Your task to perform on an android device: turn off picture-in-picture Image 0: 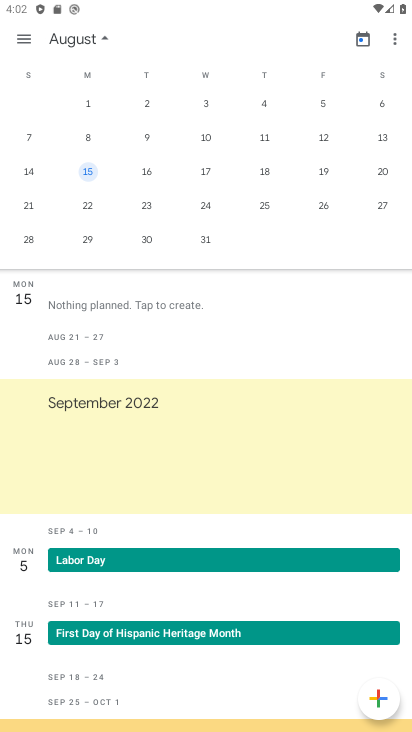
Step 0: press home button
Your task to perform on an android device: turn off picture-in-picture Image 1: 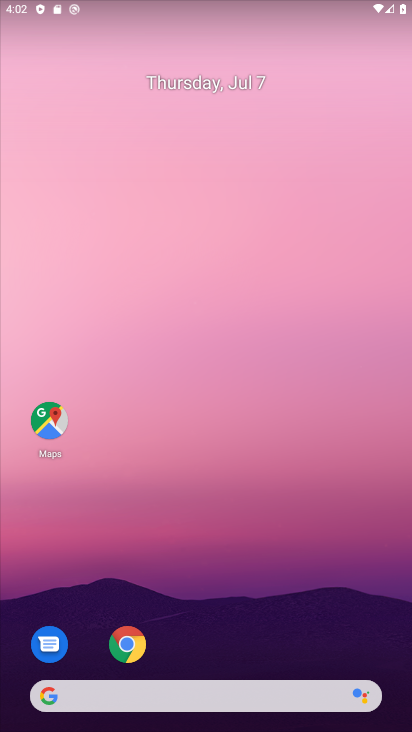
Step 1: click (133, 654)
Your task to perform on an android device: turn off picture-in-picture Image 2: 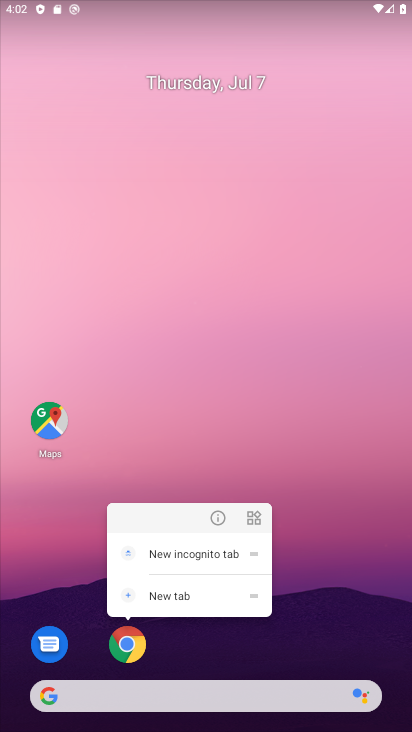
Step 2: click (222, 522)
Your task to perform on an android device: turn off picture-in-picture Image 3: 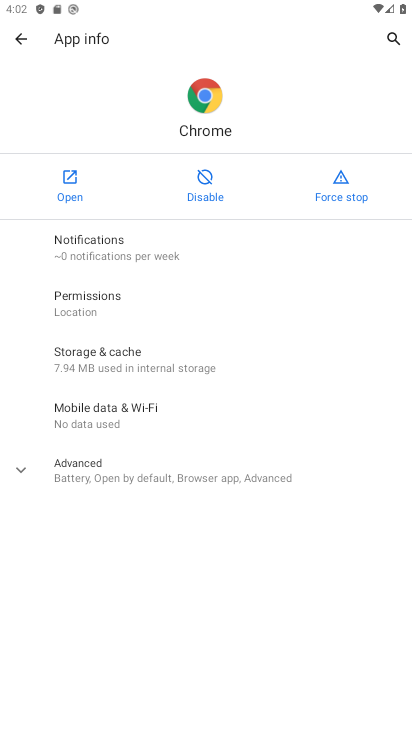
Step 3: click (197, 467)
Your task to perform on an android device: turn off picture-in-picture Image 4: 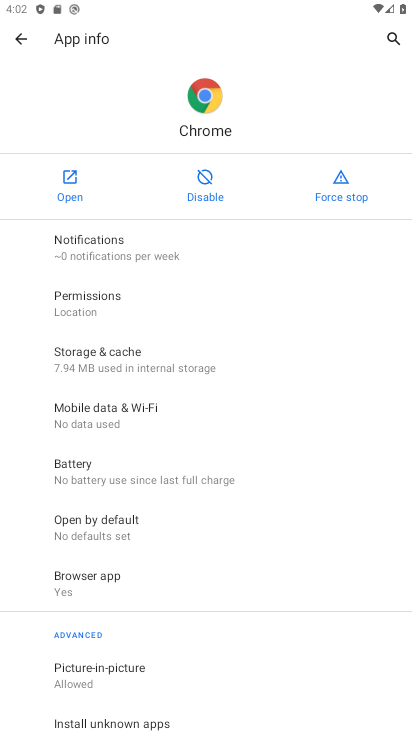
Step 4: click (186, 664)
Your task to perform on an android device: turn off picture-in-picture Image 5: 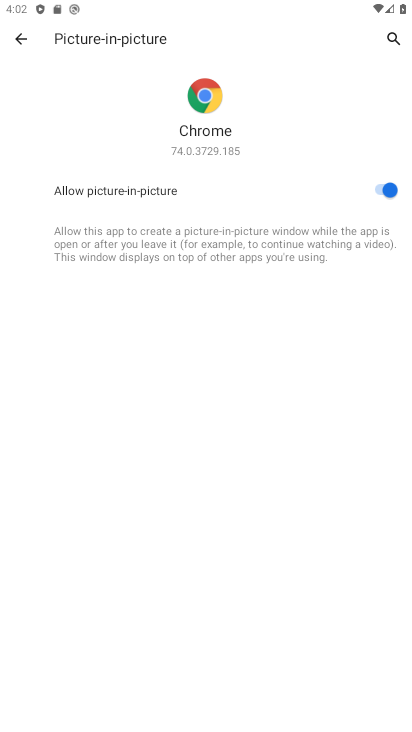
Step 5: click (369, 191)
Your task to perform on an android device: turn off picture-in-picture Image 6: 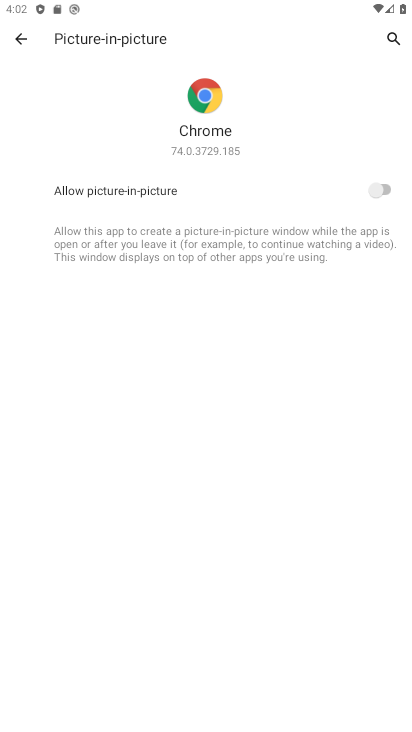
Step 6: task complete